Your task to perform on an android device: Turn on the flashlight Image 0: 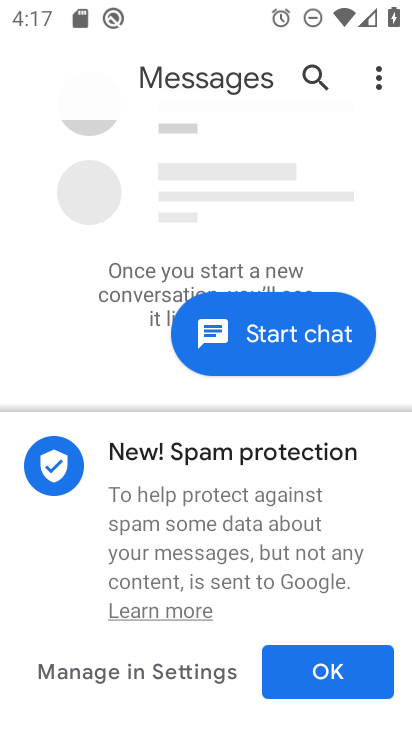
Step 0: press home button
Your task to perform on an android device: Turn on the flashlight Image 1: 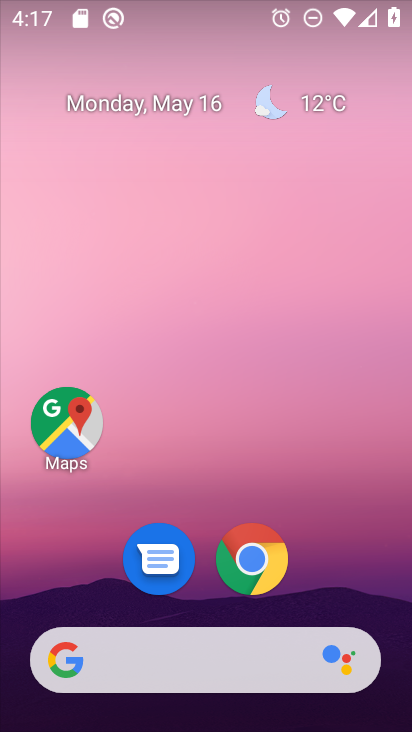
Step 1: drag from (330, 521) to (316, 78)
Your task to perform on an android device: Turn on the flashlight Image 2: 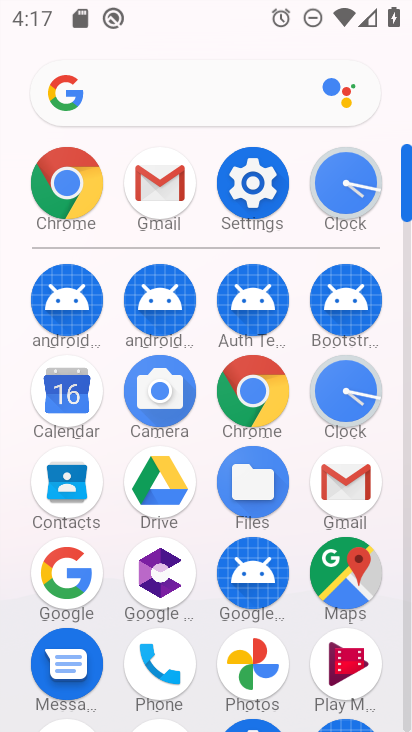
Step 2: click (267, 203)
Your task to perform on an android device: Turn on the flashlight Image 3: 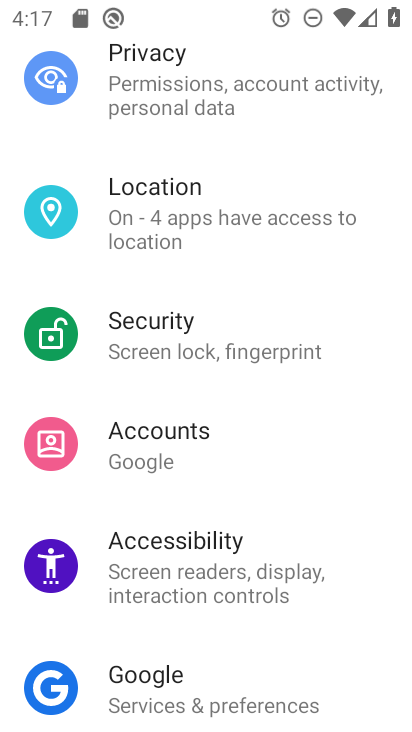
Step 3: click (192, 472)
Your task to perform on an android device: Turn on the flashlight Image 4: 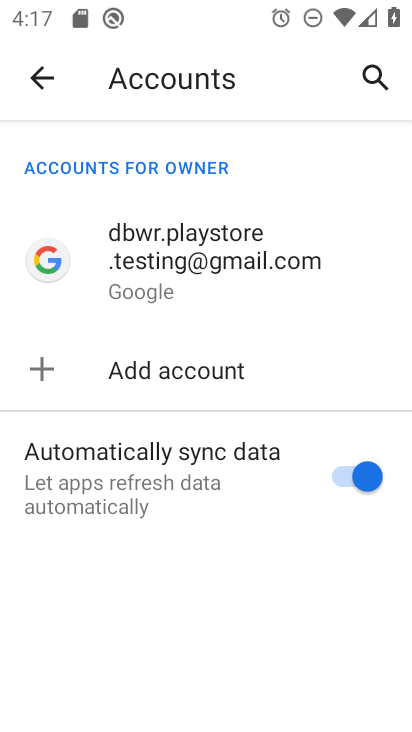
Step 4: task complete